Your task to perform on an android device: Open Amazon Image 0: 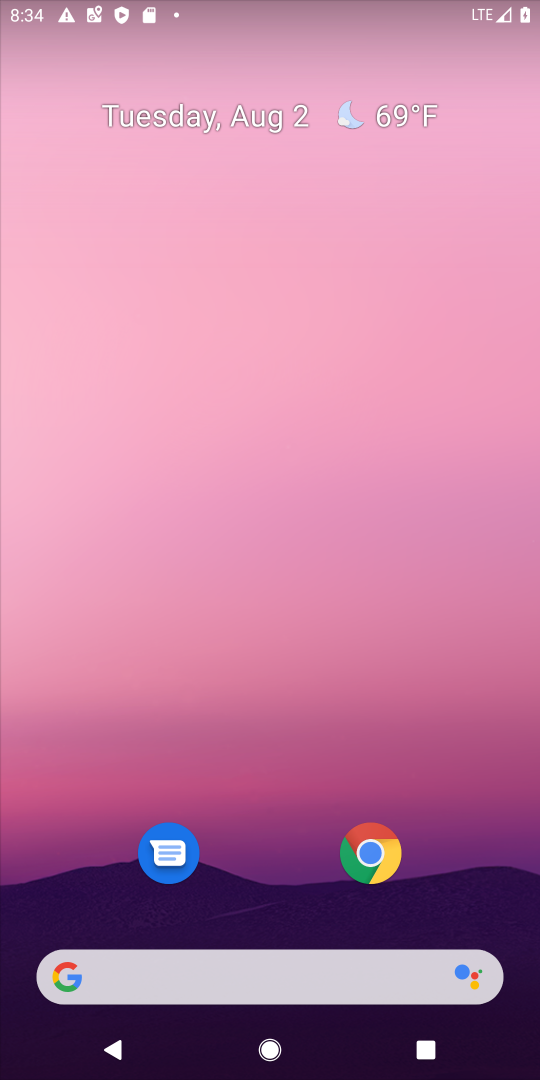
Step 0: click (378, 826)
Your task to perform on an android device: Open Amazon Image 1: 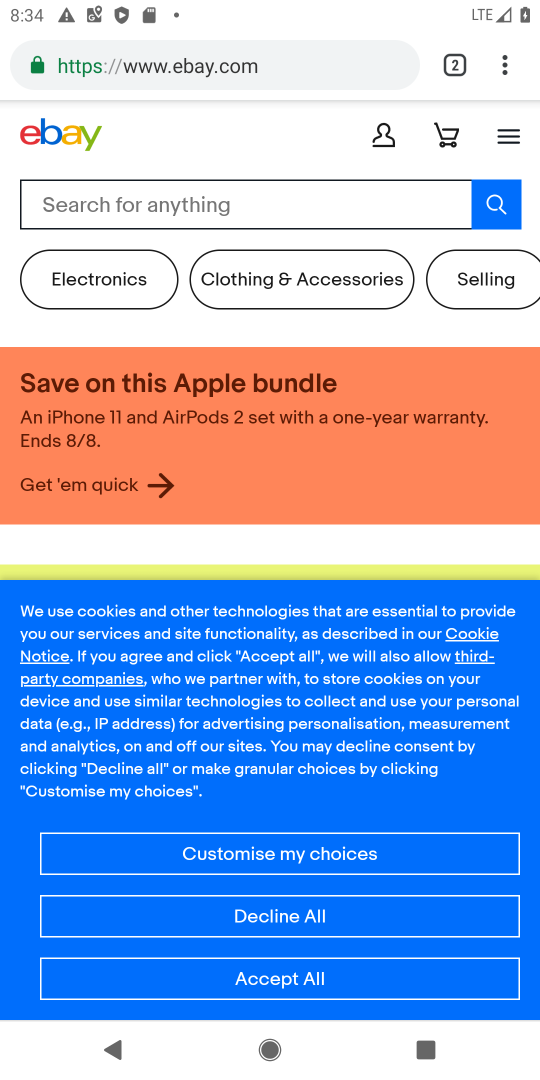
Step 1: click (454, 74)
Your task to perform on an android device: Open Amazon Image 2: 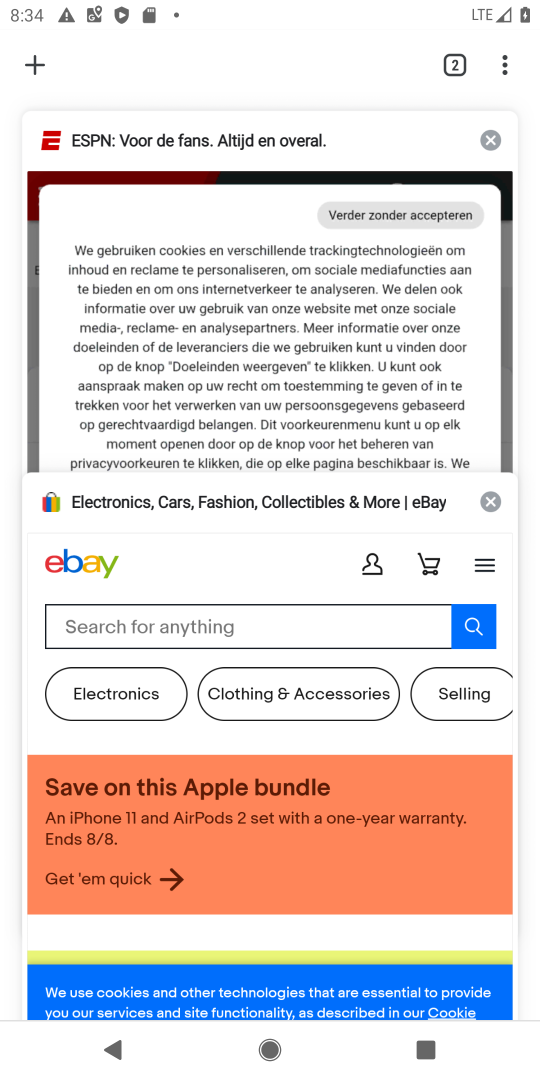
Step 2: click (37, 64)
Your task to perform on an android device: Open Amazon Image 3: 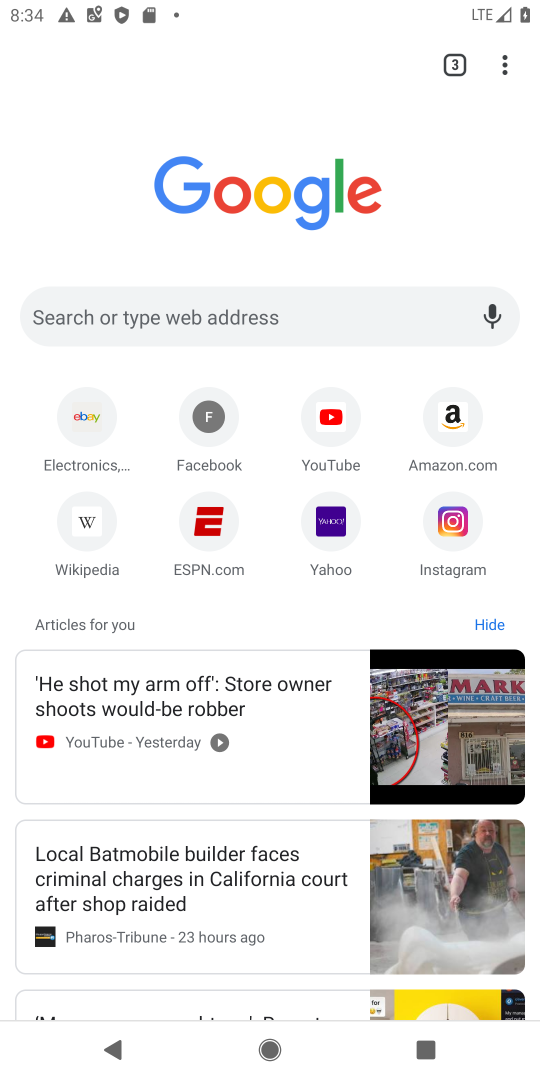
Step 3: click (427, 435)
Your task to perform on an android device: Open Amazon Image 4: 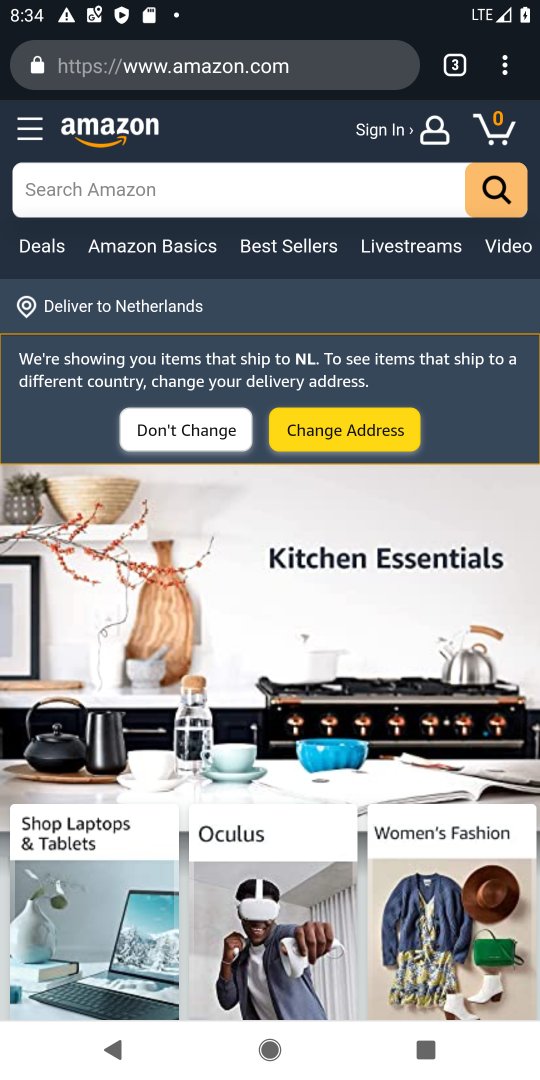
Step 4: task complete